Your task to perform on an android device: change notifications settings Image 0: 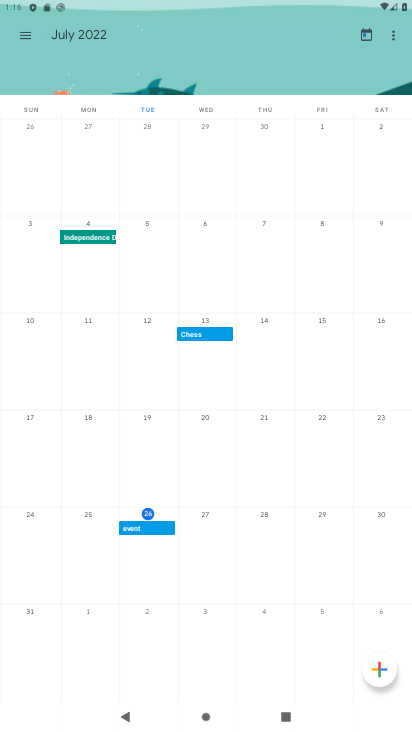
Step 0: press home button
Your task to perform on an android device: change notifications settings Image 1: 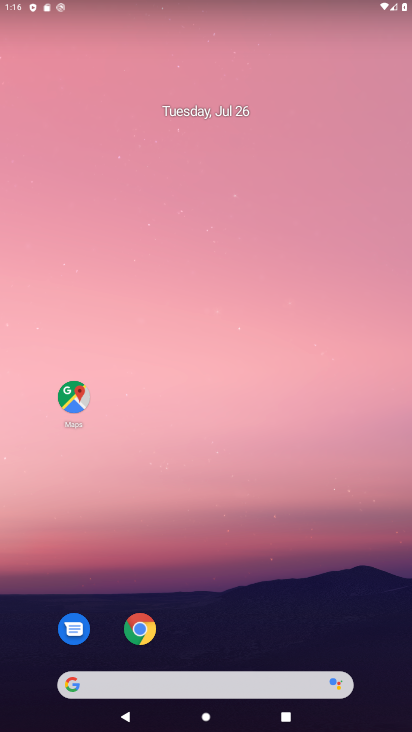
Step 1: drag from (229, 530) to (290, 161)
Your task to perform on an android device: change notifications settings Image 2: 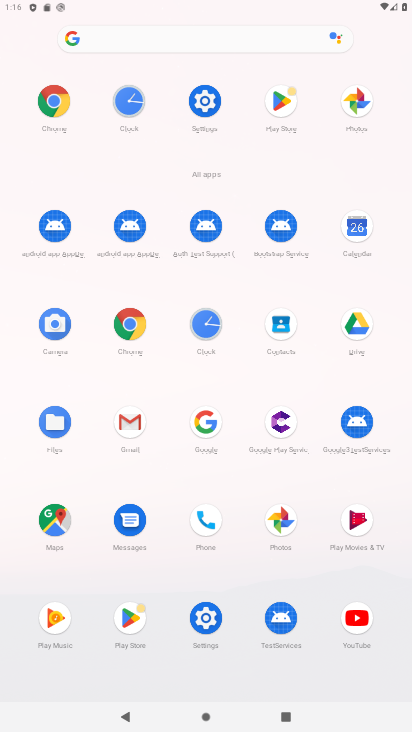
Step 2: click (204, 616)
Your task to perform on an android device: change notifications settings Image 3: 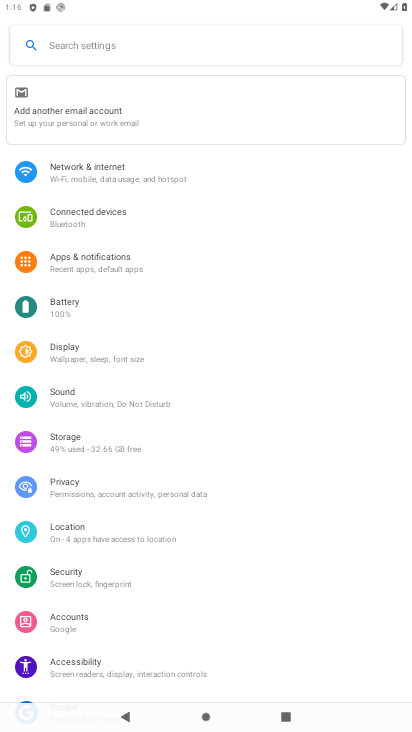
Step 3: click (95, 258)
Your task to perform on an android device: change notifications settings Image 4: 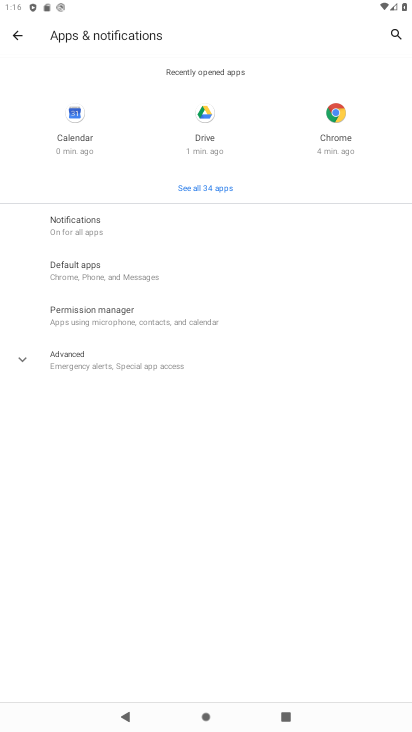
Step 4: task complete